Your task to perform on an android device: open app "Venmo" (install if not already installed) and enter user name: "bleedings@gmail.com" and password: "copied" Image 0: 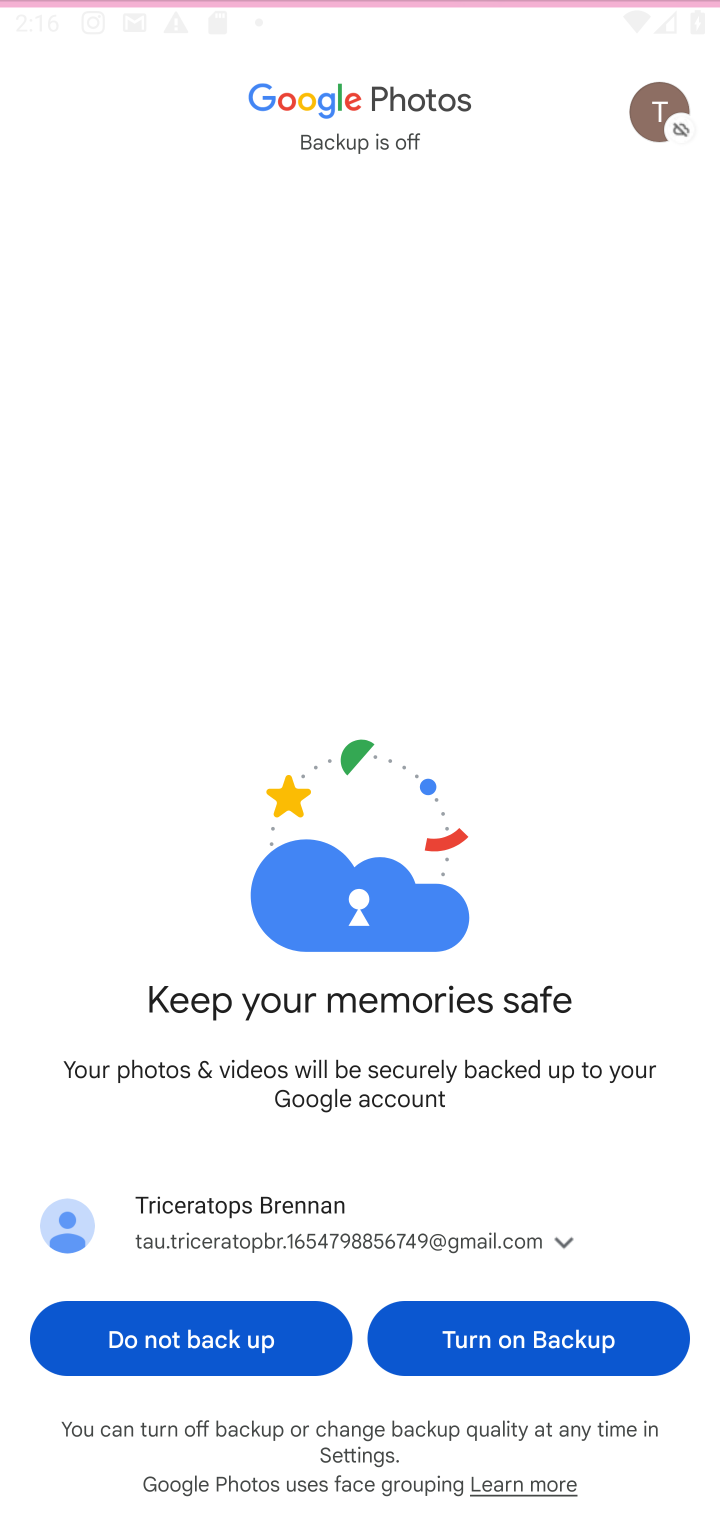
Step 0: click (329, 415)
Your task to perform on an android device: open app "Venmo" (install if not already installed) and enter user name: "bleedings@gmail.com" and password: "copied" Image 1: 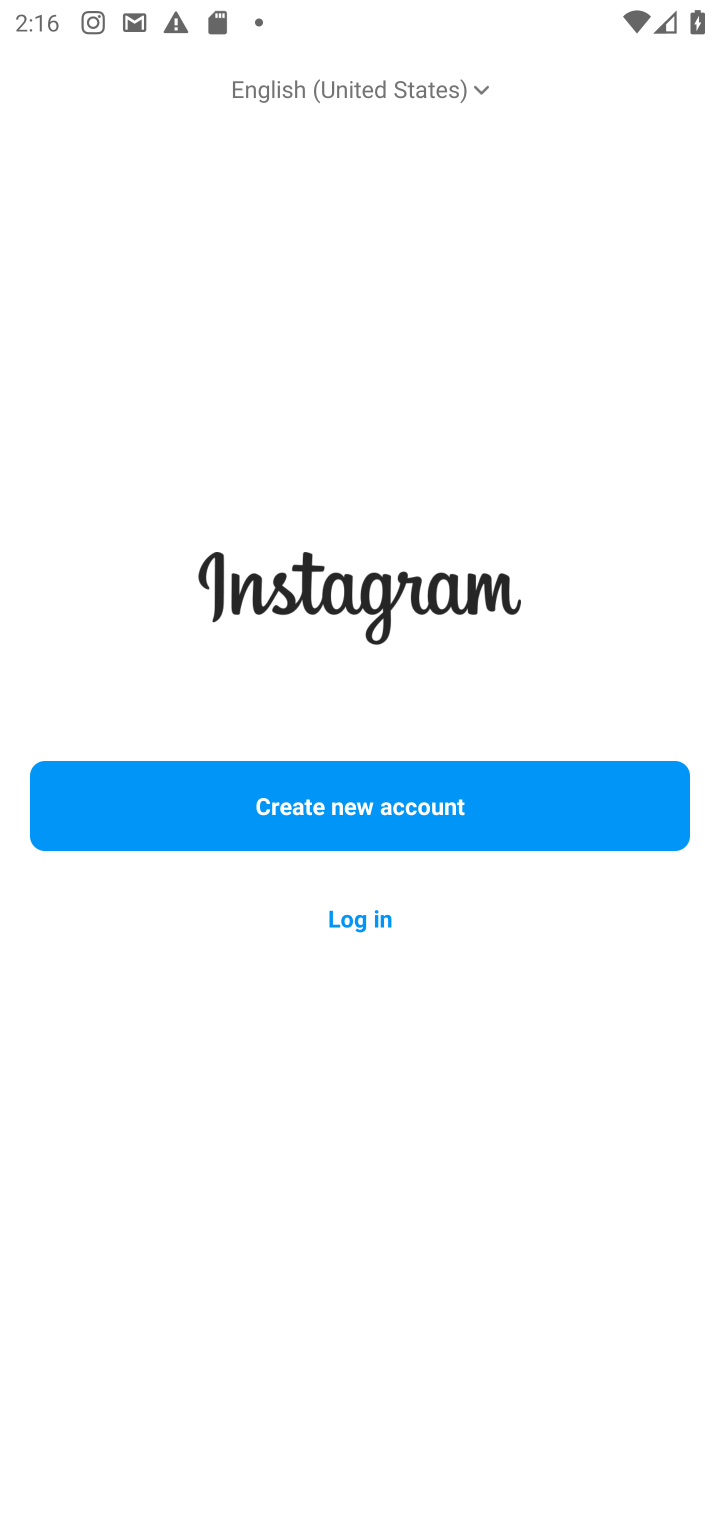
Step 1: press home button
Your task to perform on an android device: open app "Venmo" (install if not already installed) and enter user name: "bleedings@gmail.com" and password: "copied" Image 2: 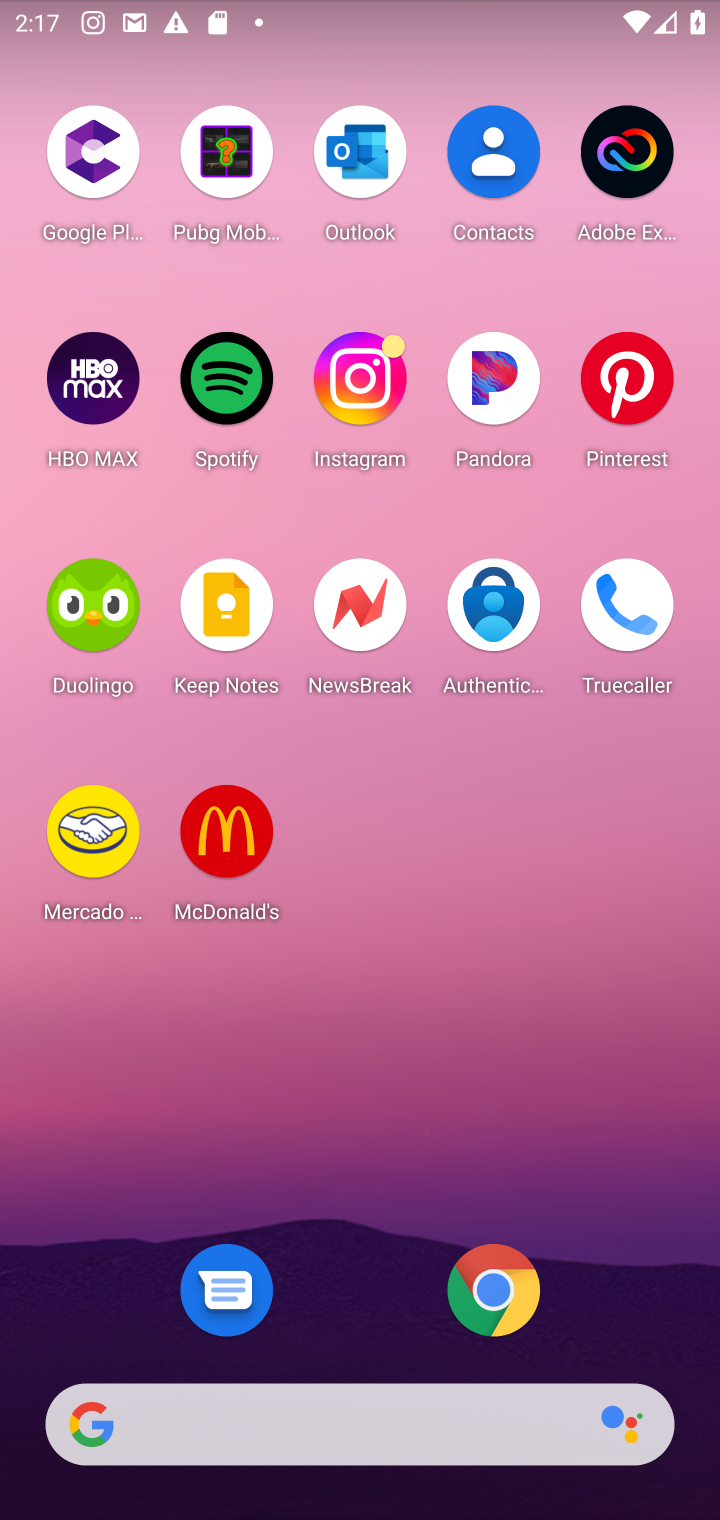
Step 2: drag from (363, 1311) to (539, 22)
Your task to perform on an android device: open app "Venmo" (install if not already installed) and enter user name: "bleedings@gmail.com" and password: "copied" Image 3: 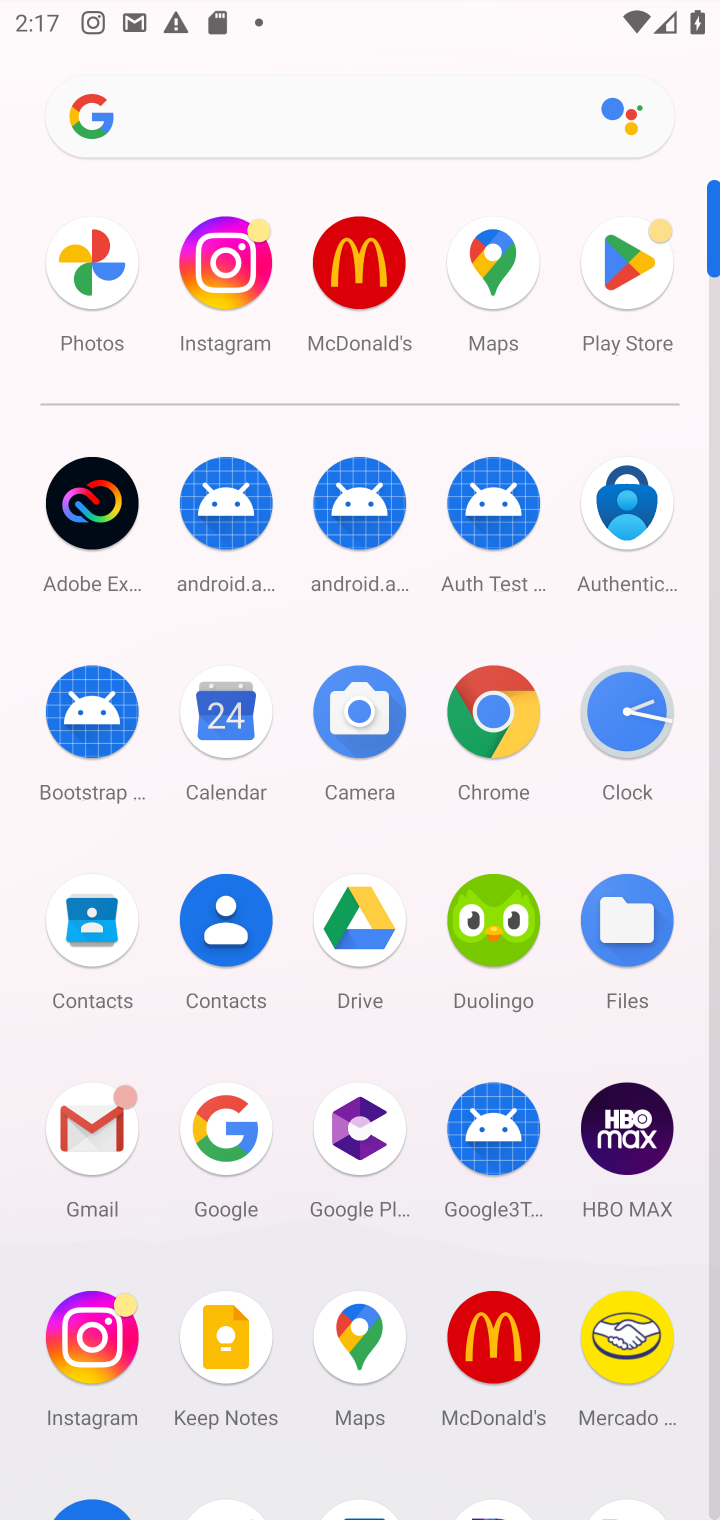
Step 3: click (634, 268)
Your task to perform on an android device: open app "Venmo" (install if not already installed) and enter user name: "bleedings@gmail.com" and password: "copied" Image 4: 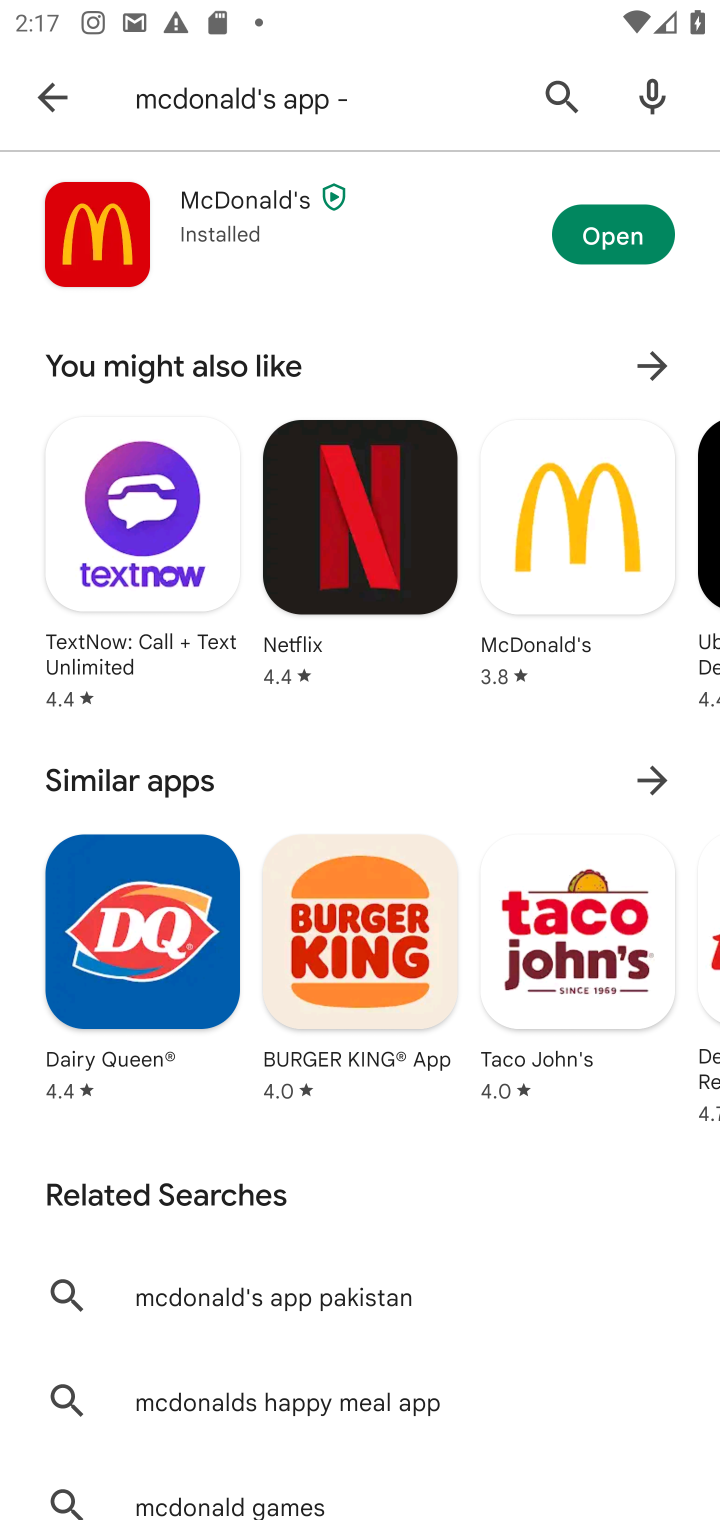
Step 4: click (39, 93)
Your task to perform on an android device: open app "Venmo" (install if not already installed) and enter user name: "bleedings@gmail.com" and password: "copied" Image 5: 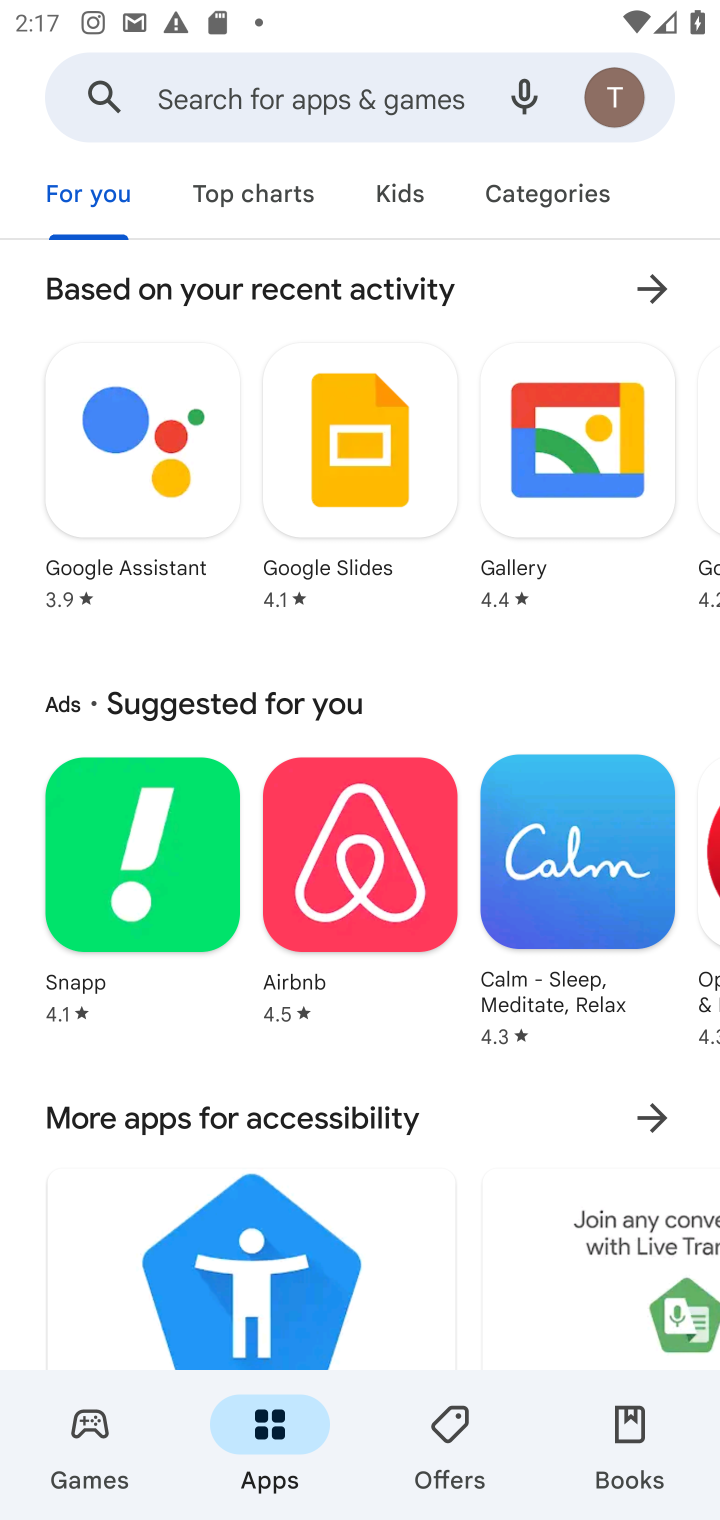
Step 5: click (403, 88)
Your task to perform on an android device: open app "Venmo" (install if not already installed) and enter user name: "bleedings@gmail.com" and password: "copied" Image 6: 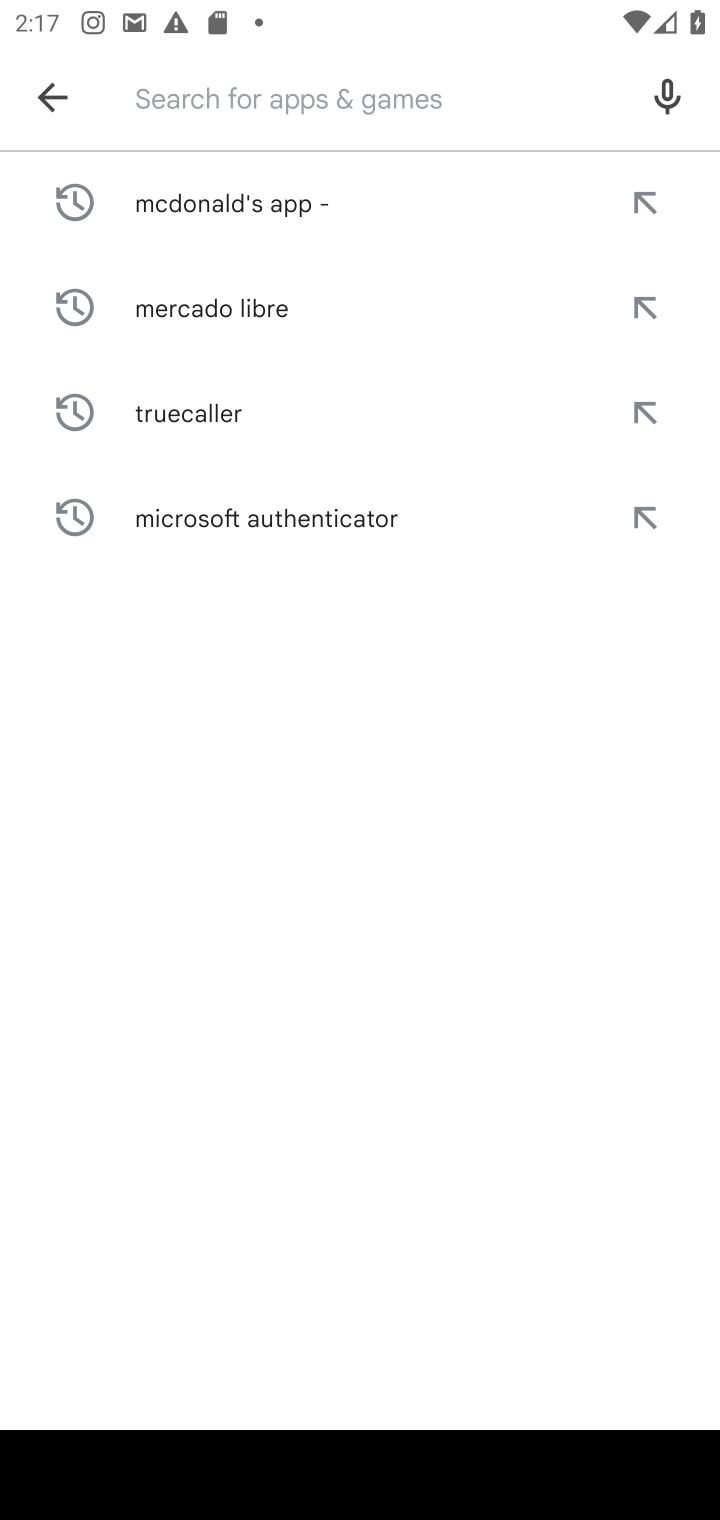
Step 6: type "Venmo"
Your task to perform on an android device: open app "Venmo" (install if not already installed) and enter user name: "bleedings@gmail.com" and password: "copied" Image 7: 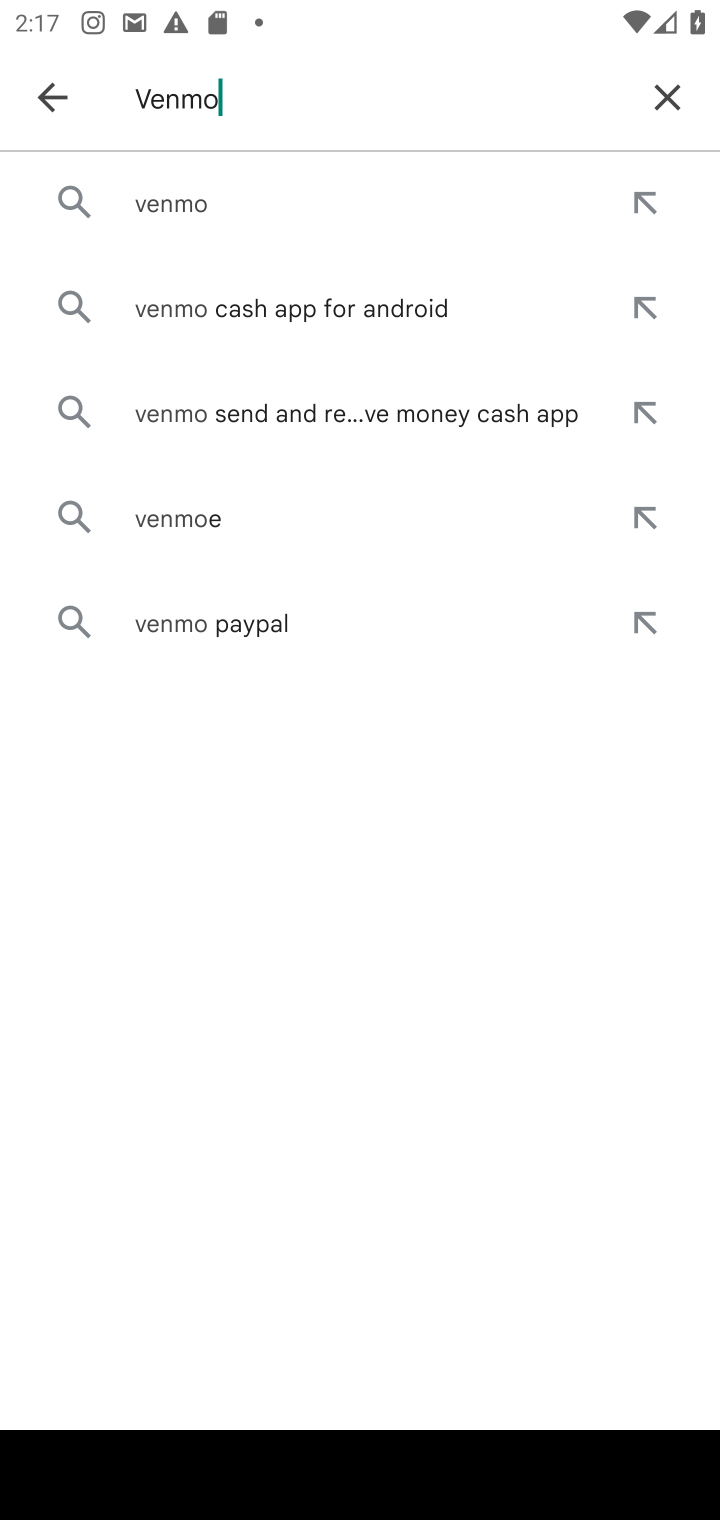
Step 7: click (169, 192)
Your task to perform on an android device: open app "Venmo" (install if not already installed) and enter user name: "bleedings@gmail.com" and password: "copied" Image 8: 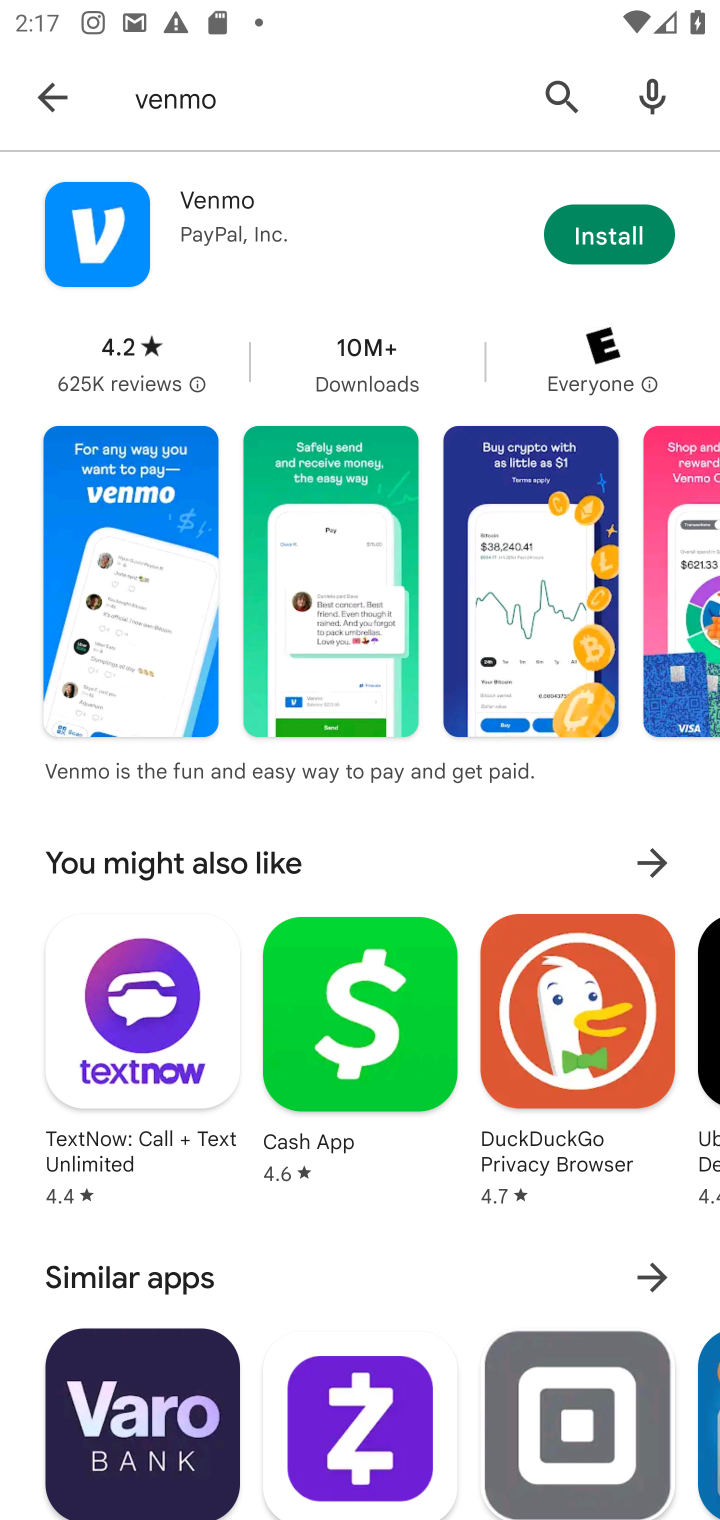
Step 8: click (613, 231)
Your task to perform on an android device: open app "Venmo" (install if not already installed) and enter user name: "bleedings@gmail.com" and password: "copied" Image 9: 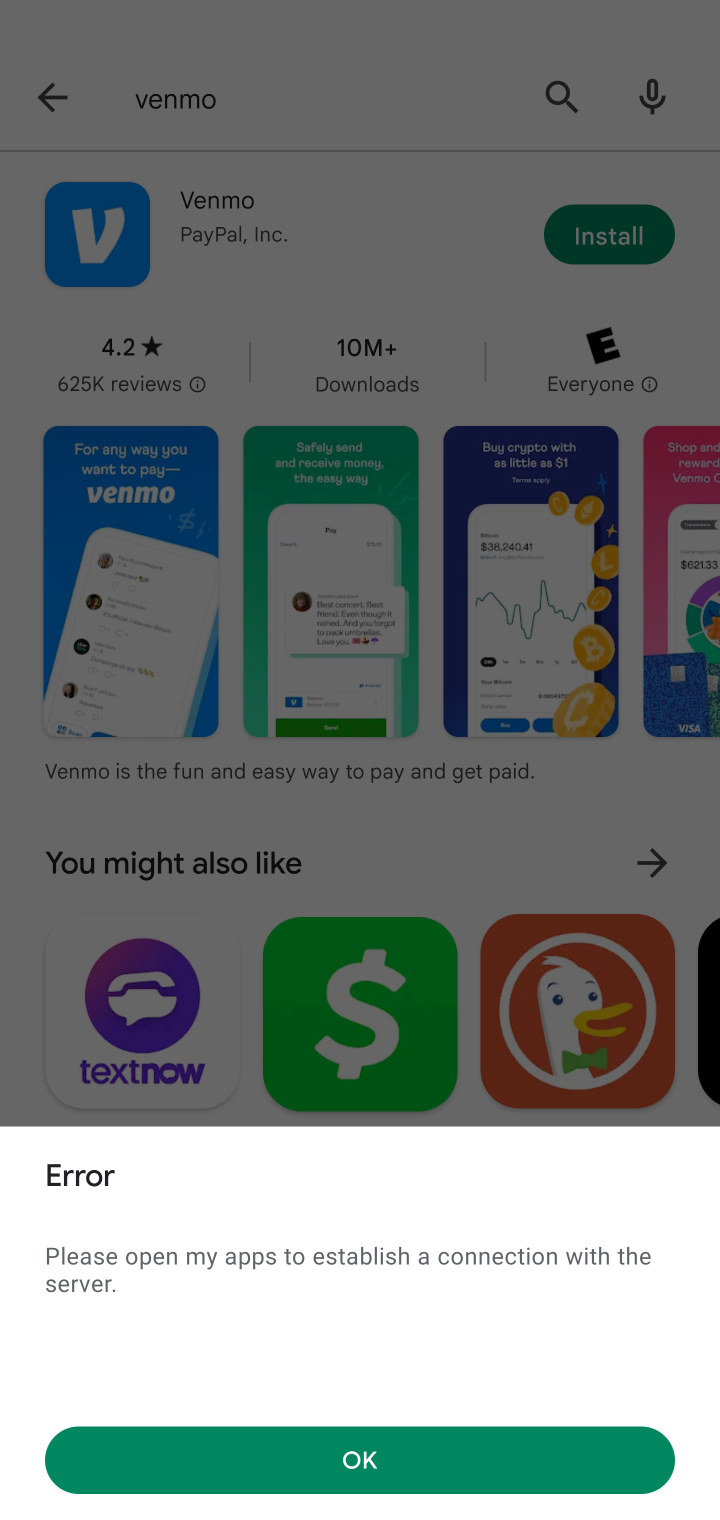
Step 9: click (346, 1489)
Your task to perform on an android device: open app "Venmo" (install if not already installed) and enter user name: "bleedings@gmail.com" and password: "copied" Image 10: 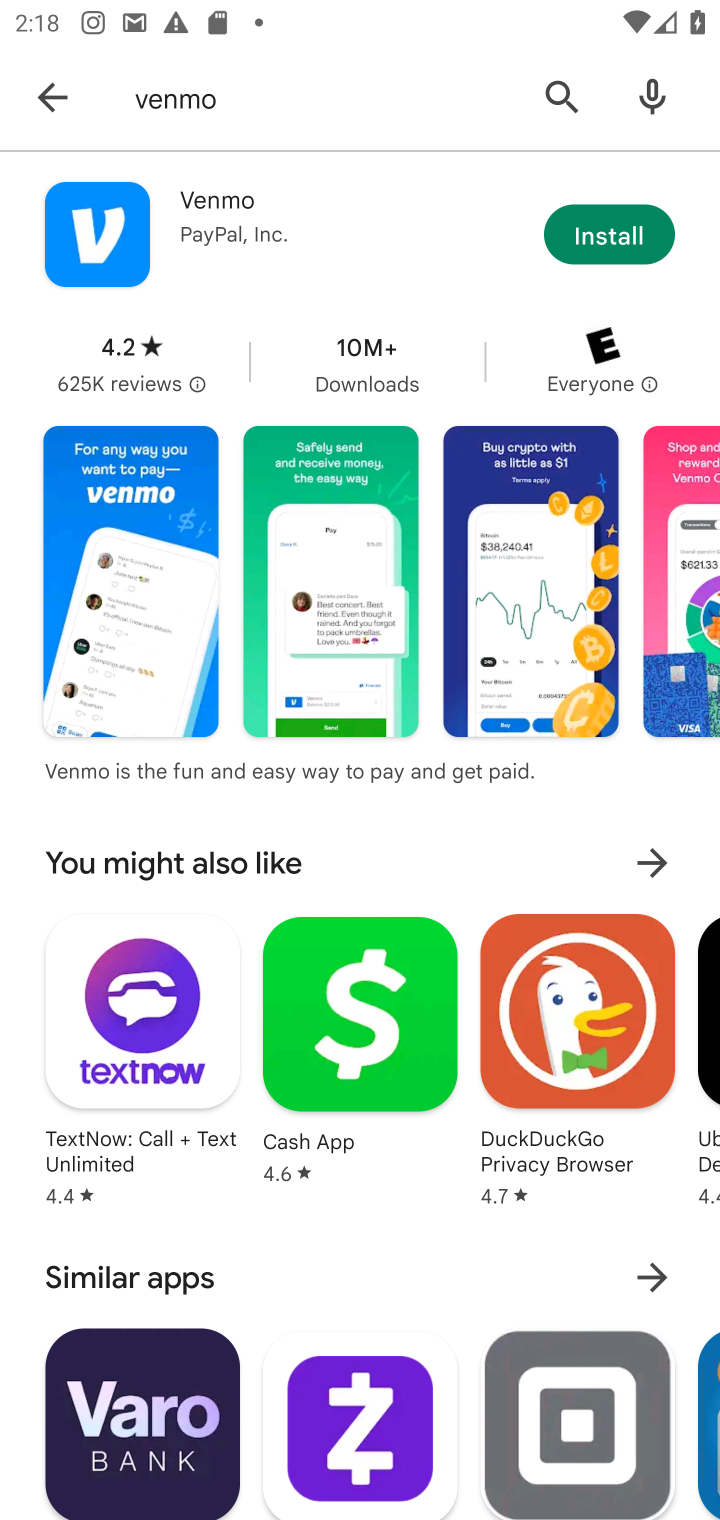
Step 10: click (606, 219)
Your task to perform on an android device: open app "Venmo" (install if not already installed) and enter user name: "bleedings@gmail.com" and password: "copied" Image 11: 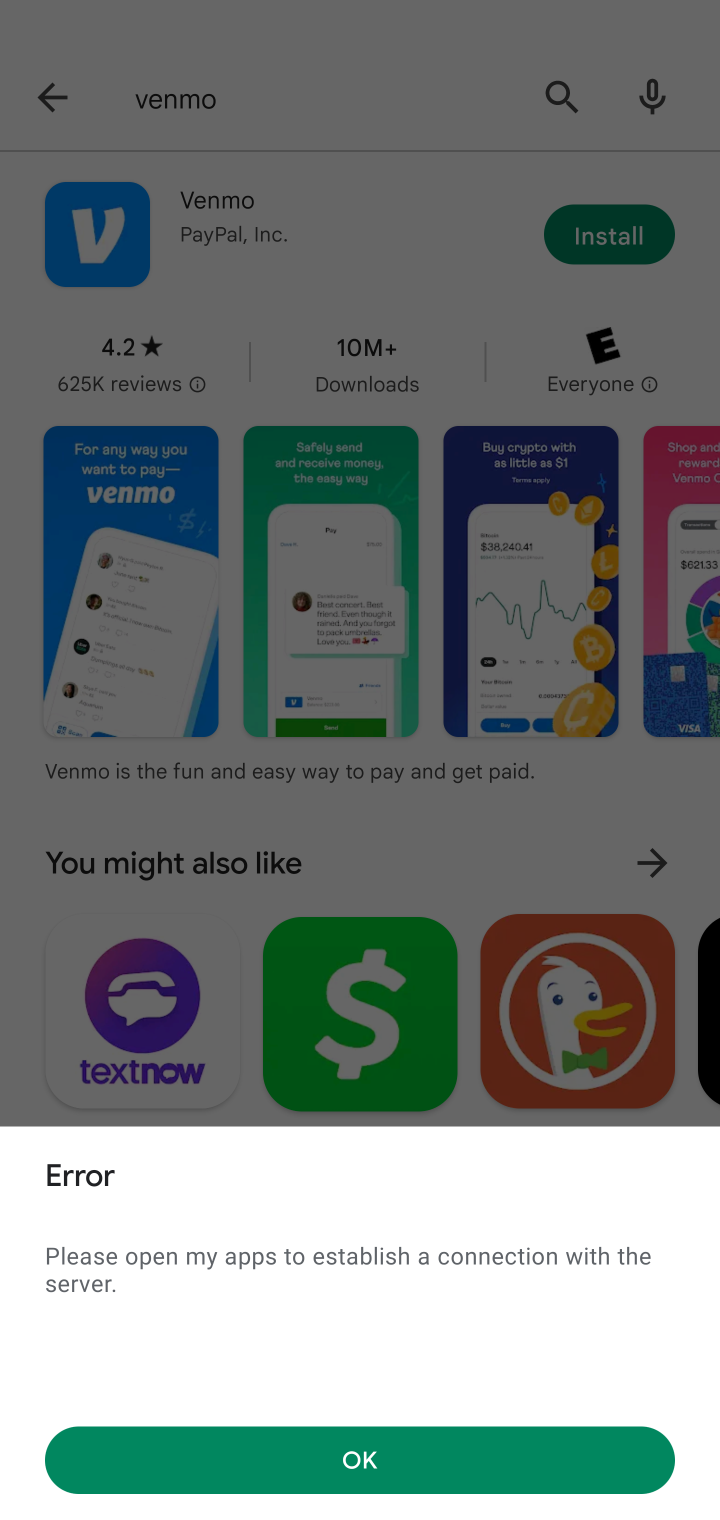
Step 11: task complete